Your task to perform on an android device: delete browsing data in the chrome app Image 0: 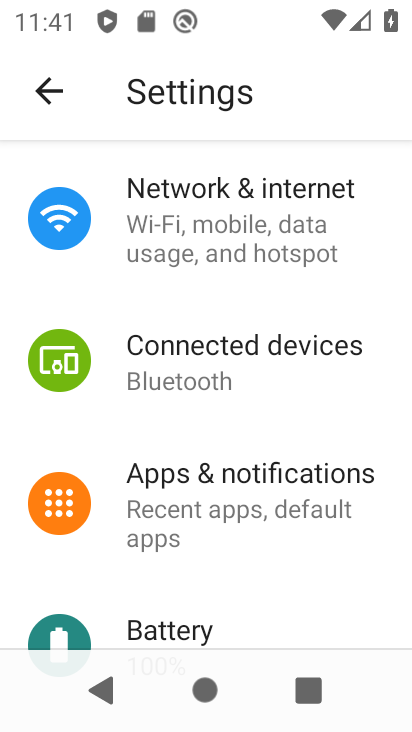
Step 0: press back button
Your task to perform on an android device: delete browsing data in the chrome app Image 1: 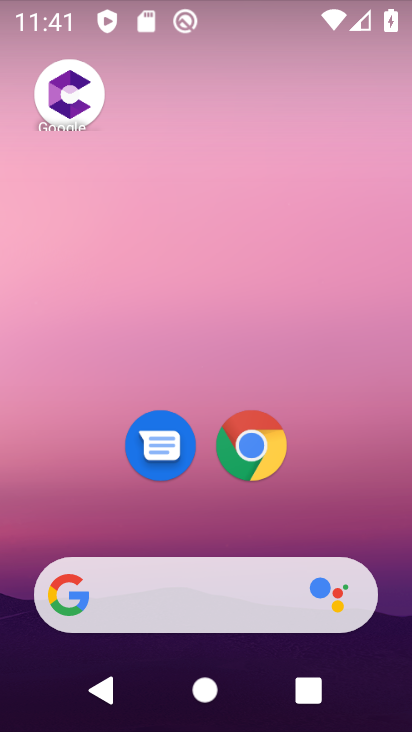
Step 1: click (250, 447)
Your task to perform on an android device: delete browsing data in the chrome app Image 2: 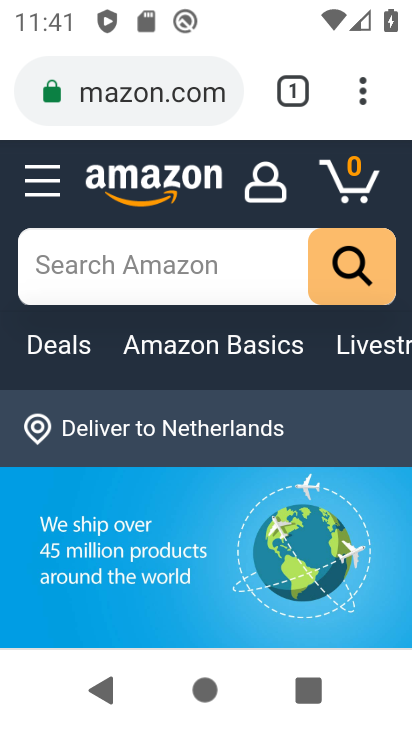
Step 2: drag from (365, 86) to (110, 250)
Your task to perform on an android device: delete browsing data in the chrome app Image 3: 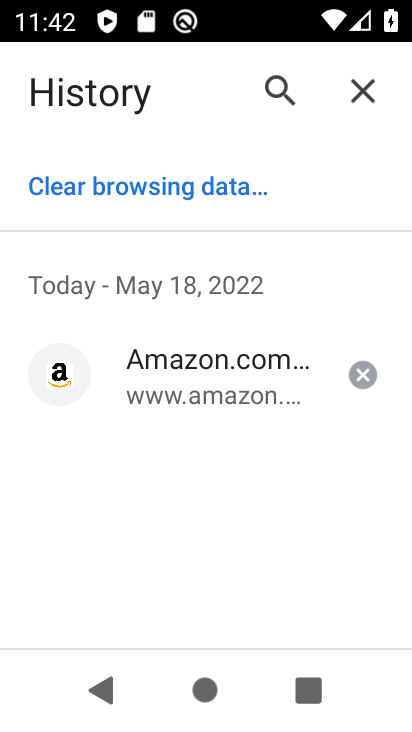
Step 3: click (161, 189)
Your task to perform on an android device: delete browsing data in the chrome app Image 4: 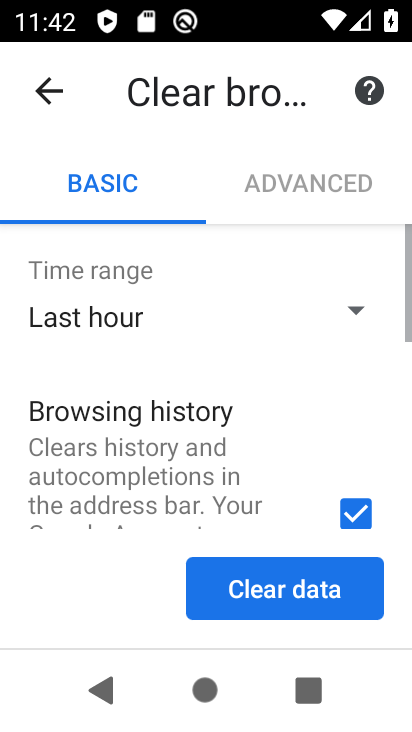
Step 4: click (283, 598)
Your task to perform on an android device: delete browsing data in the chrome app Image 5: 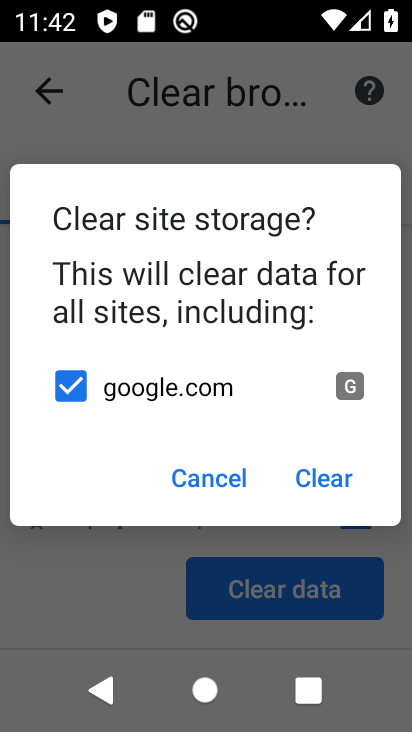
Step 5: click (323, 476)
Your task to perform on an android device: delete browsing data in the chrome app Image 6: 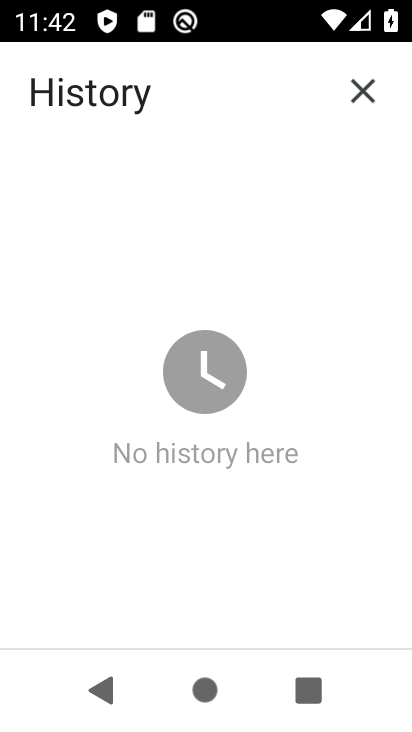
Step 6: task complete